Your task to perform on an android device: turn on priority inbox in the gmail app Image 0: 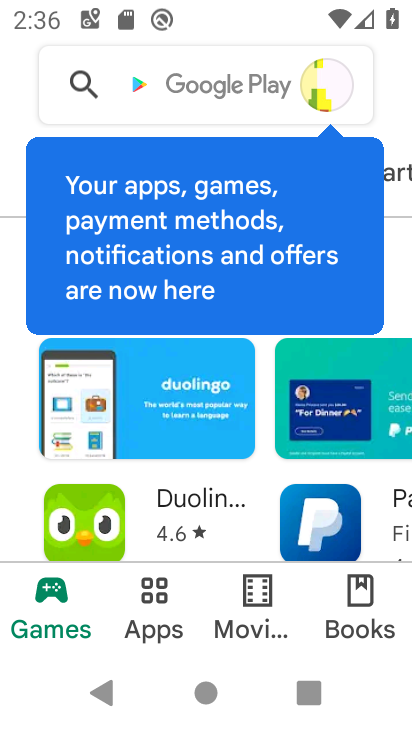
Step 0: press home button
Your task to perform on an android device: turn on priority inbox in the gmail app Image 1: 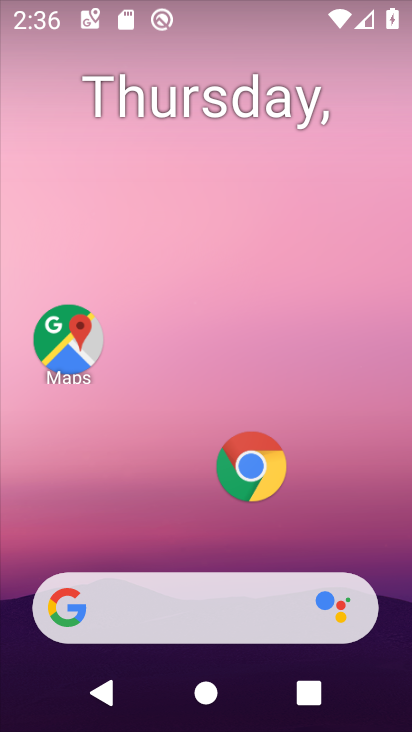
Step 1: drag from (204, 551) to (203, 168)
Your task to perform on an android device: turn on priority inbox in the gmail app Image 2: 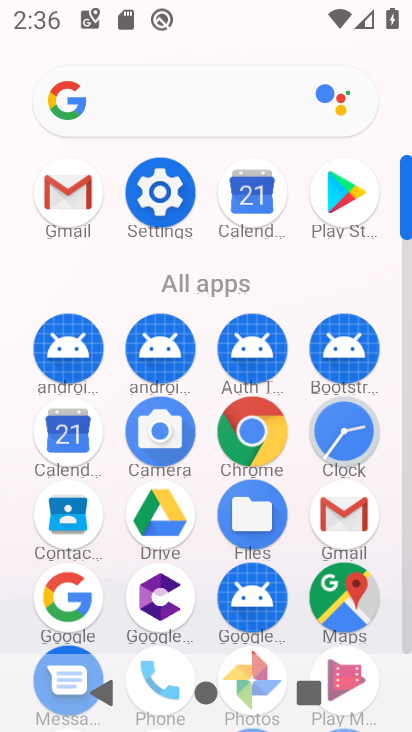
Step 2: click (77, 216)
Your task to perform on an android device: turn on priority inbox in the gmail app Image 3: 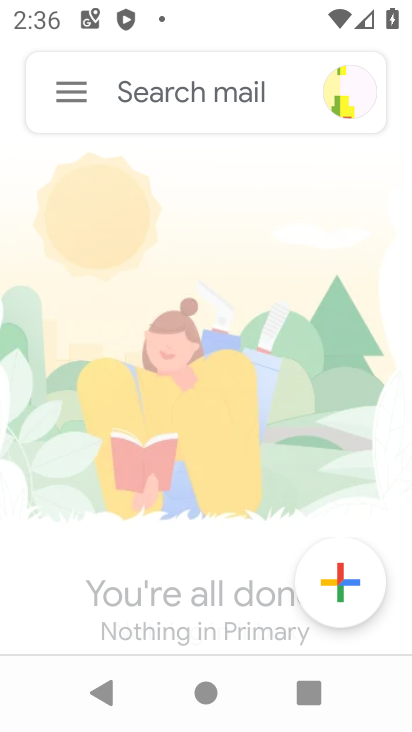
Step 3: click (75, 91)
Your task to perform on an android device: turn on priority inbox in the gmail app Image 4: 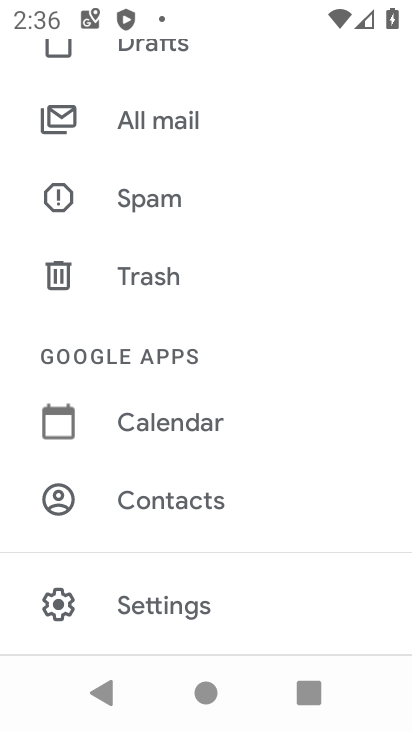
Step 4: click (195, 620)
Your task to perform on an android device: turn on priority inbox in the gmail app Image 5: 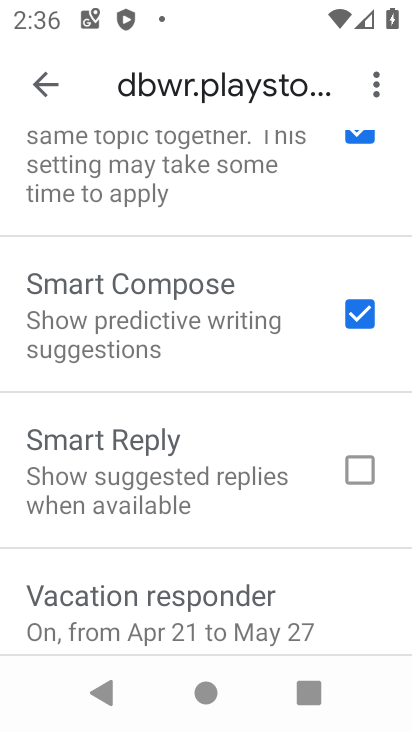
Step 5: drag from (197, 240) to (197, 480)
Your task to perform on an android device: turn on priority inbox in the gmail app Image 6: 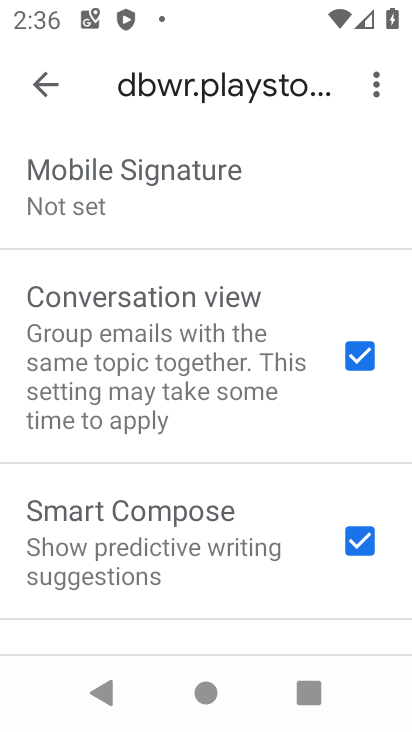
Step 6: drag from (177, 190) to (179, 491)
Your task to perform on an android device: turn on priority inbox in the gmail app Image 7: 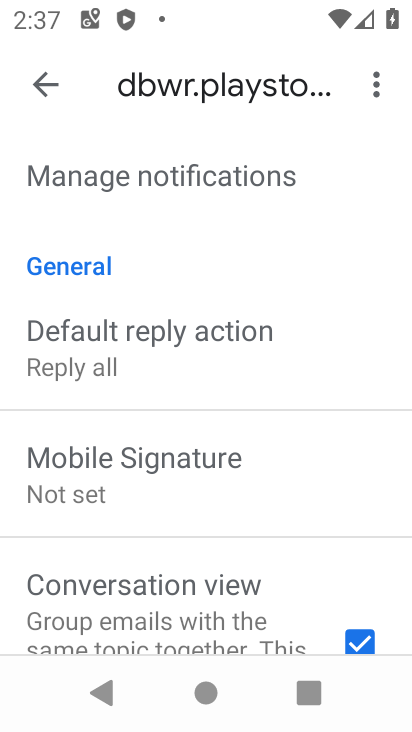
Step 7: drag from (180, 267) to (186, 576)
Your task to perform on an android device: turn on priority inbox in the gmail app Image 8: 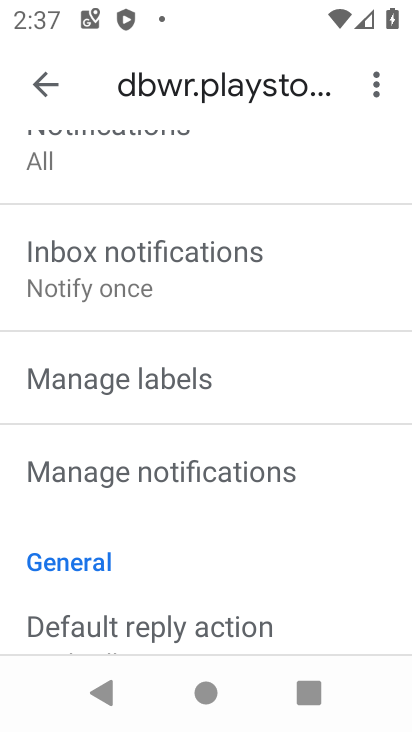
Step 8: drag from (158, 275) to (158, 545)
Your task to perform on an android device: turn on priority inbox in the gmail app Image 9: 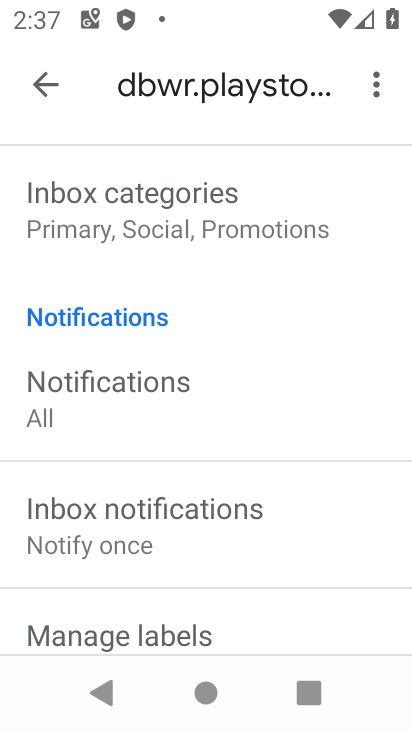
Step 9: drag from (172, 193) to (203, 438)
Your task to perform on an android device: turn on priority inbox in the gmail app Image 10: 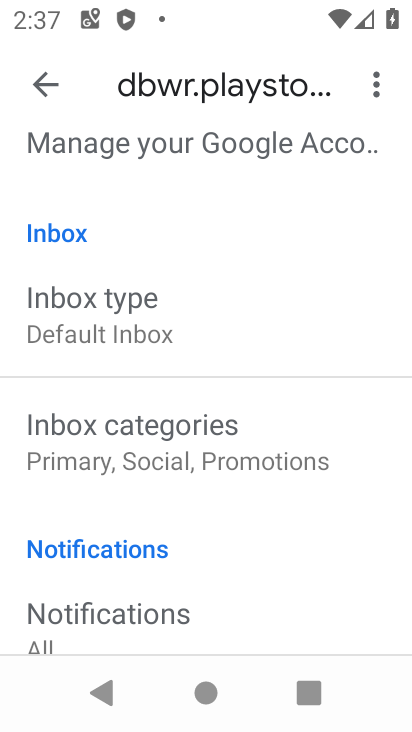
Step 10: click (134, 333)
Your task to perform on an android device: turn on priority inbox in the gmail app Image 11: 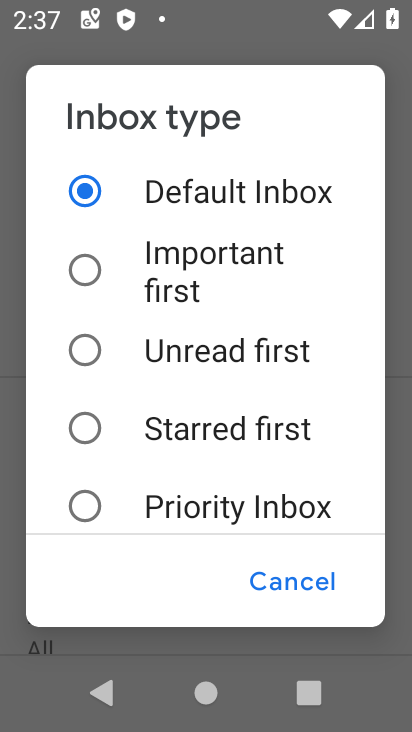
Step 11: click (164, 498)
Your task to perform on an android device: turn on priority inbox in the gmail app Image 12: 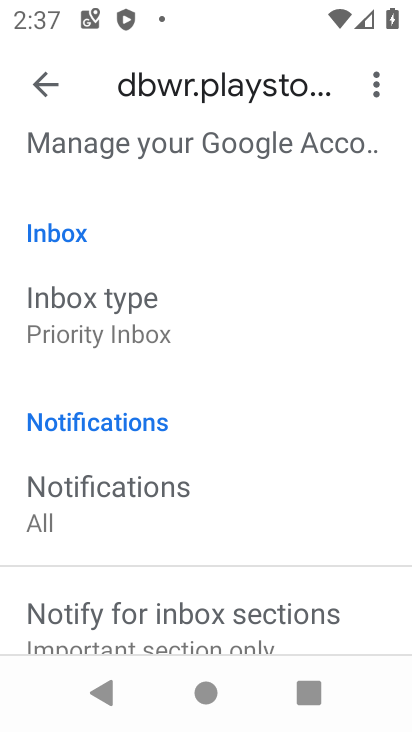
Step 12: task complete